Your task to perform on an android device: Check the news Image 0: 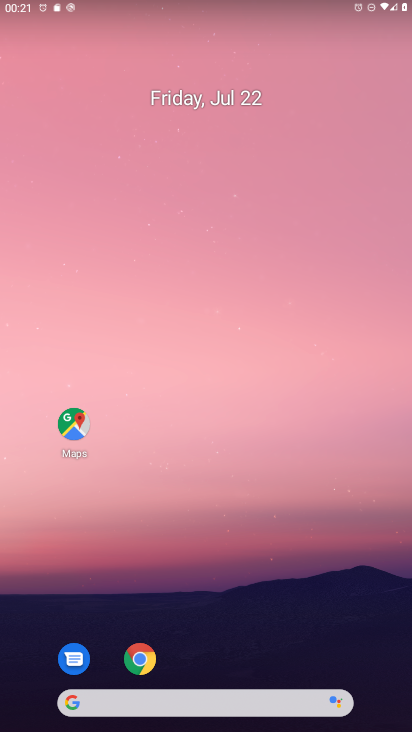
Step 0: drag from (231, 707) to (280, 207)
Your task to perform on an android device: Check the news Image 1: 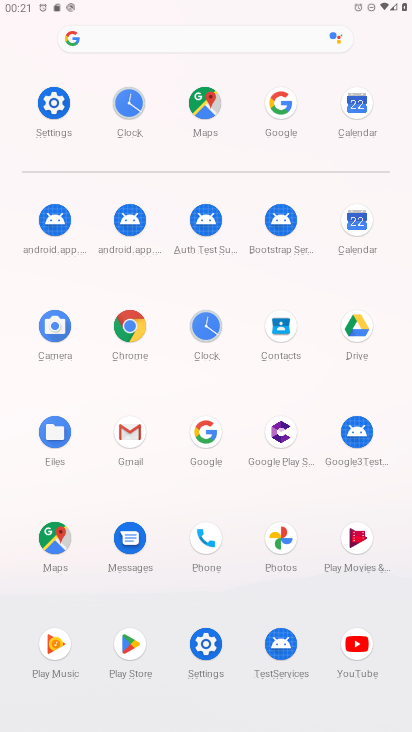
Step 1: click (277, 104)
Your task to perform on an android device: Check the news Image 2: 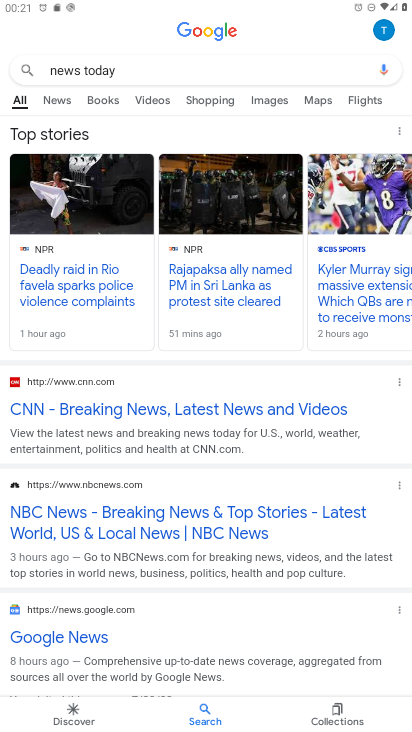
Step 2: click (116, 296)
Your task to perform on an android device: Check the news Image 3: 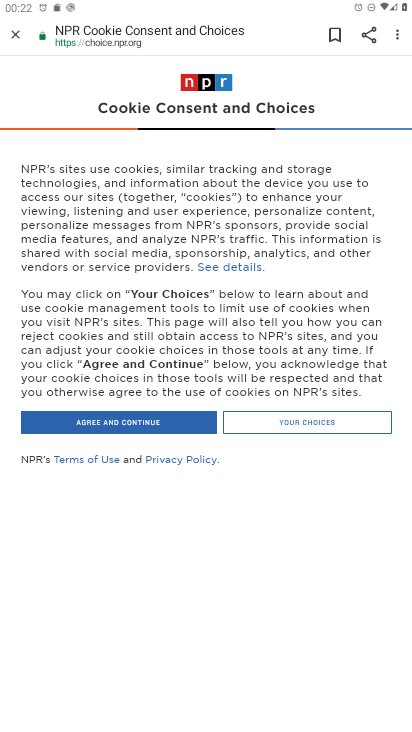
Step 3: click (161, 424)
Your task to perform on an android device: Check the news Image 4: 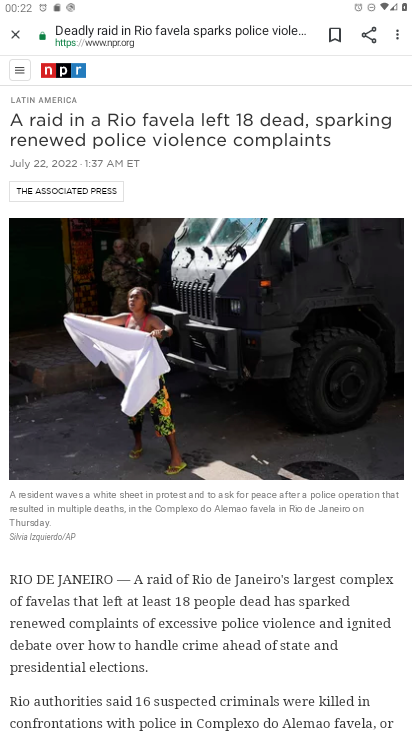
Step 4: task complete